Your task to perform on an android device: Open the map Image 0: 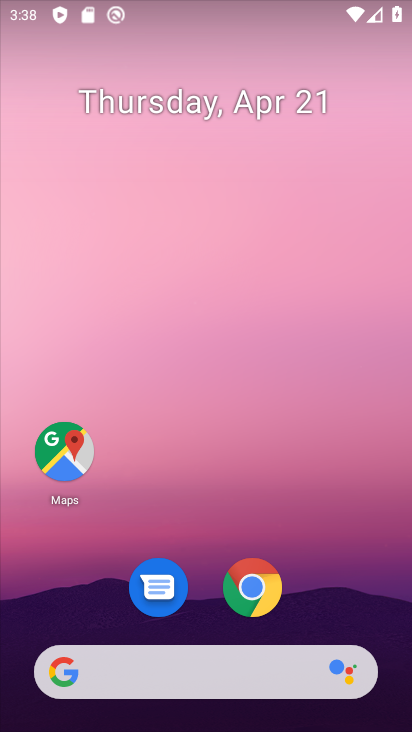
Step 0: click (64, 457)
Your task to perform on an android device: Open the map Image 1: 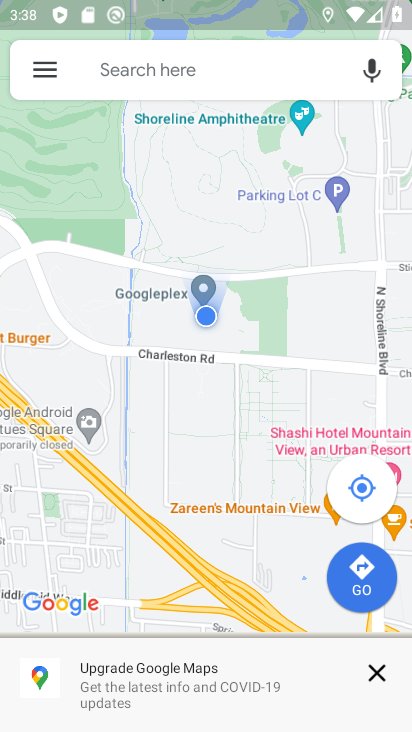
Step 1: task complete